Your task to perform on an android device: turn on the 12-hour format for clock Image 0: 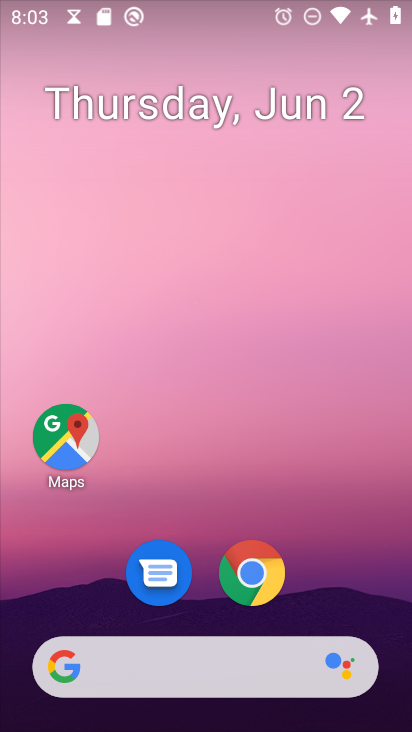
Step 0: drag from (215, 640) to (377, 45)
Your task to perform on an android device: turn on the 12-hour format for clock Image 1: 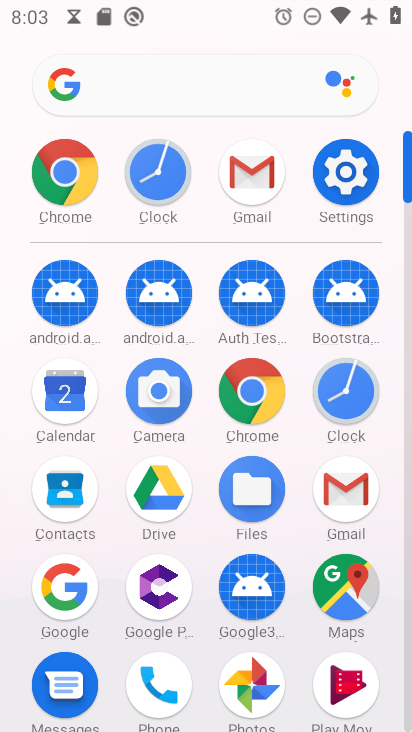
Step 1: click (166, 182)
Your task to perform on an android device: turn on the 12-hour format for clock Image 2: 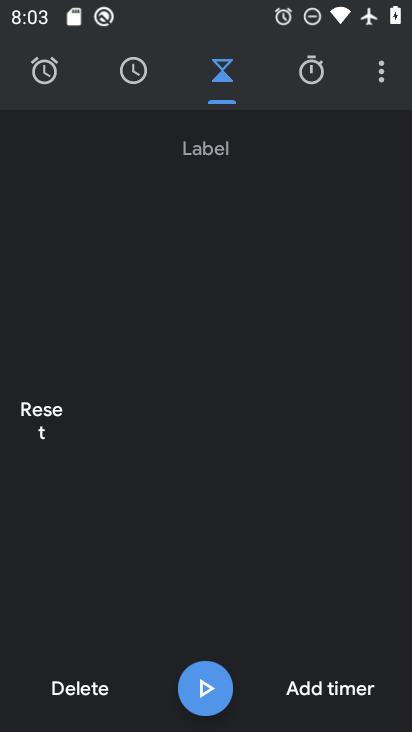
Step 2: click (381, 77)
Your task to perform on an android device: turn on the 12-hour format for clock Image 3: 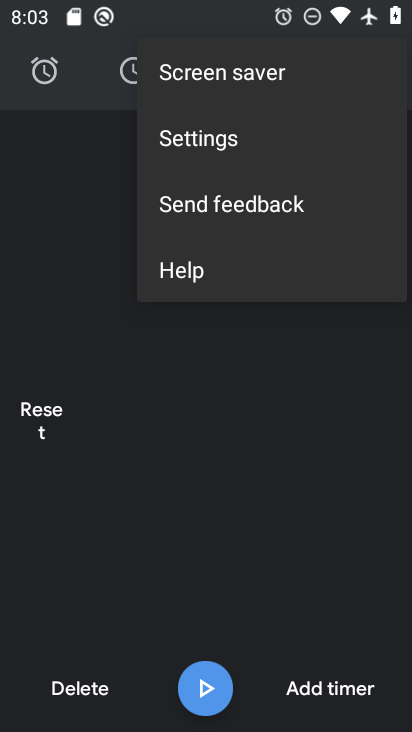
Step 3: click (182, 146)
Your task to perform on an android device: turn on the 12-hour format for clock Image 4: 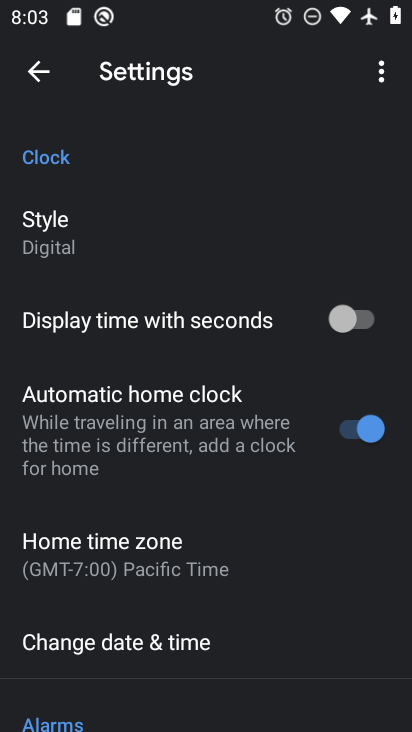
Step 4: click (154, 640)
Your task to perform on an android device: turn on the 12-hour format for clock Image 5: 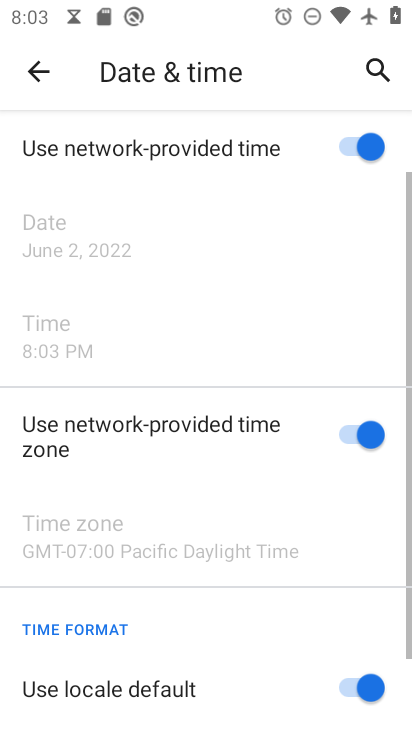
Step 5: task complete